Your task to perform on an android device: turn off translation in the chrome app Image 0: 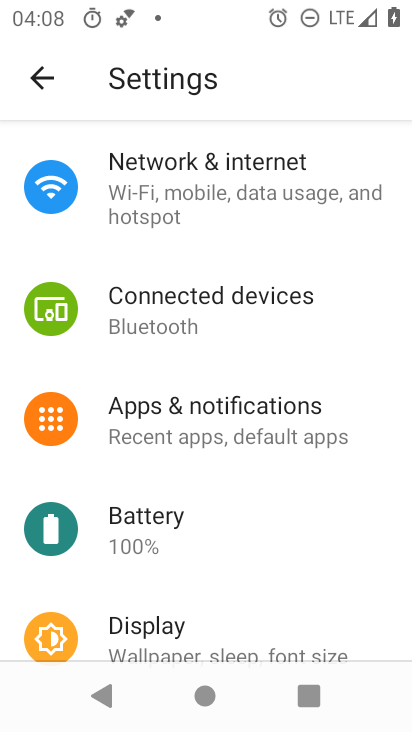
Step 0: press home button
Your task to perform on an android device: turn off translation in the chrome app Image 1: 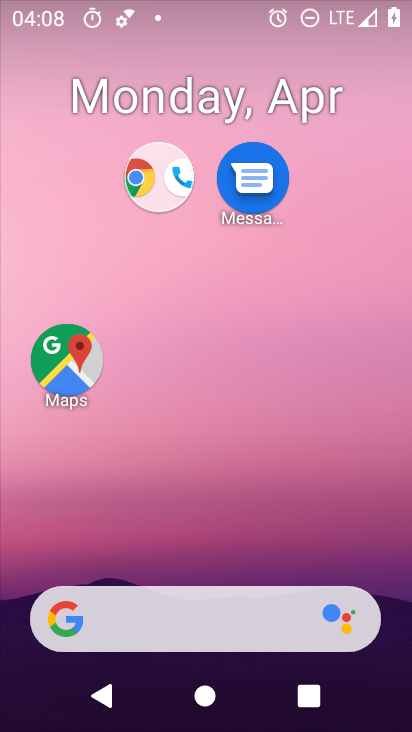
Step 1: drag from (246, 626) to (213, 0)
Your task to perform on an android device: turn off translation in the chrome app Image 2: 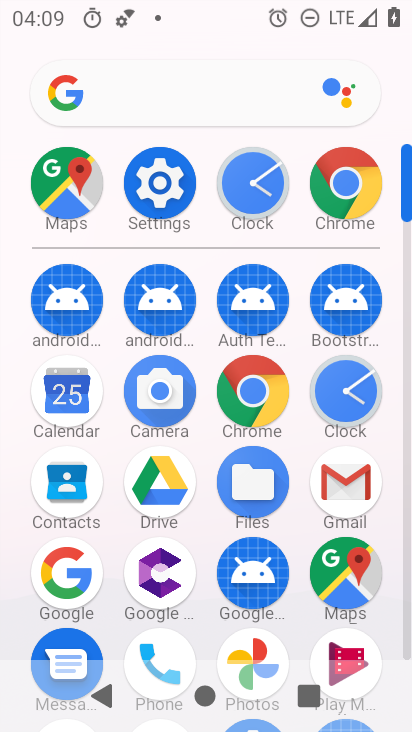
Step 2: click (258, 389)
Your task to perform on an android device: turn off translation in the chrome app Image 3: 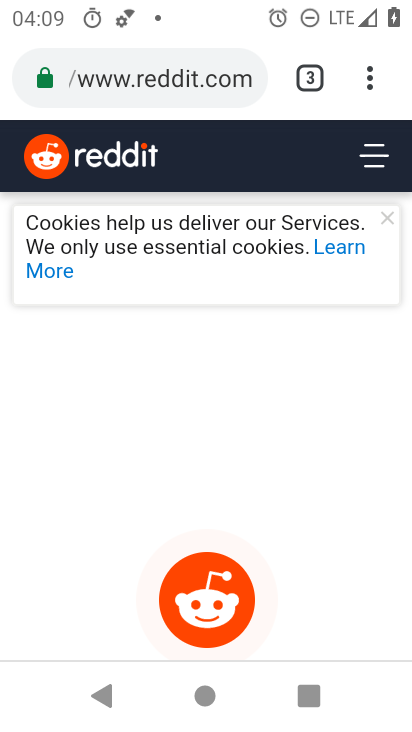
Step 3: drag from (363, 80) to (111, 546)
Your task to perform on an android device: turn off translation in the chrome app Image 4: 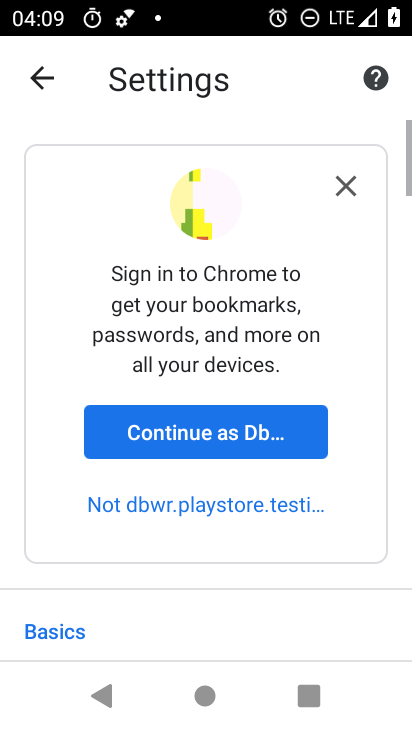
Step 4: drag from (201, 620) to (145, 80)
Your task to perform on an android device: turn off translation in the chrome app Image 5: 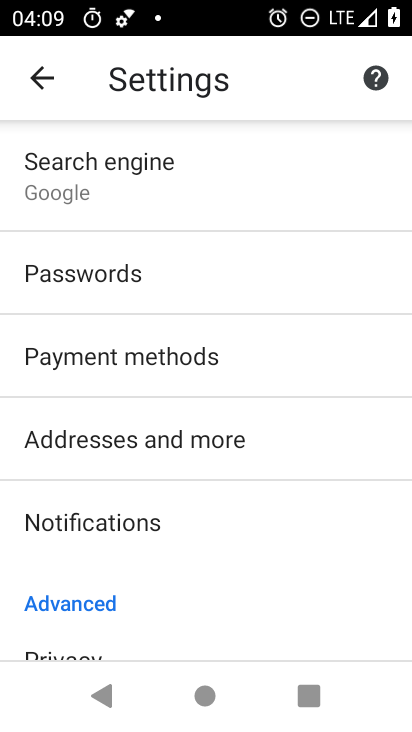
Step 5: drag from (219, 597) to (246, 57)
Your task to perform on an android device: turn off translation in the chrome app Image 6: 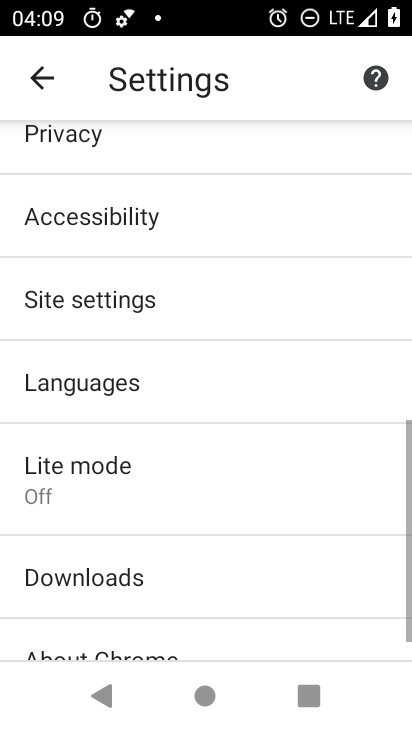
Step 6: click (149, 498)
Your task to perform on an android device: turn off translation in the chrome app Image 7: 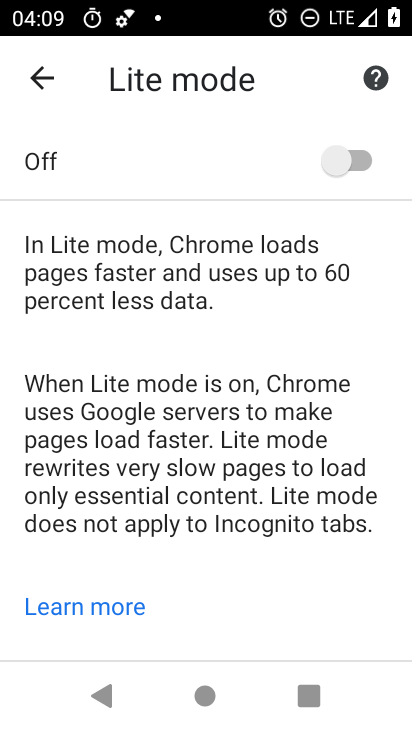
Step 7: press back button
Your task to perform on an android device: turn off translation in the chrome app Image 8: 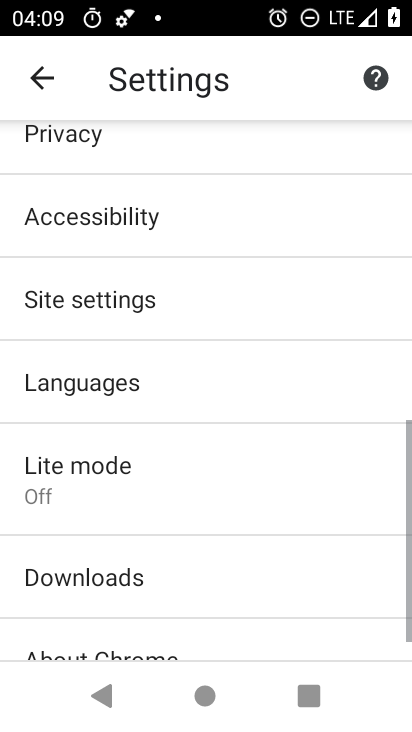
Step 8: click (118, 375)
Your task to perform on an android device: turn off translation in the chrome app Image 9: 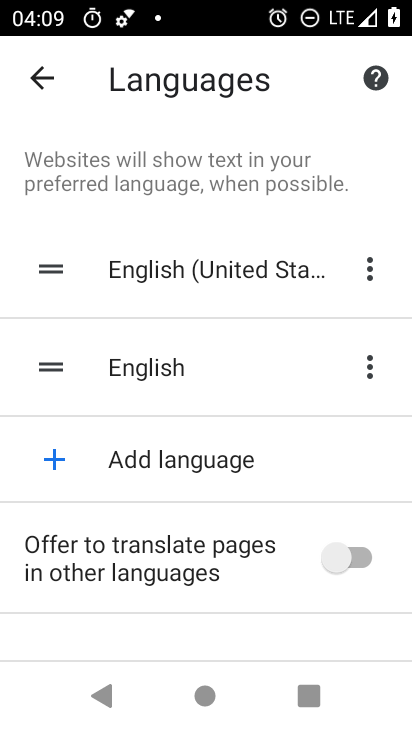
Step 9: task complete